Your task to perform on an android device: Search for seafood restaurants on Google Maps Image 0: 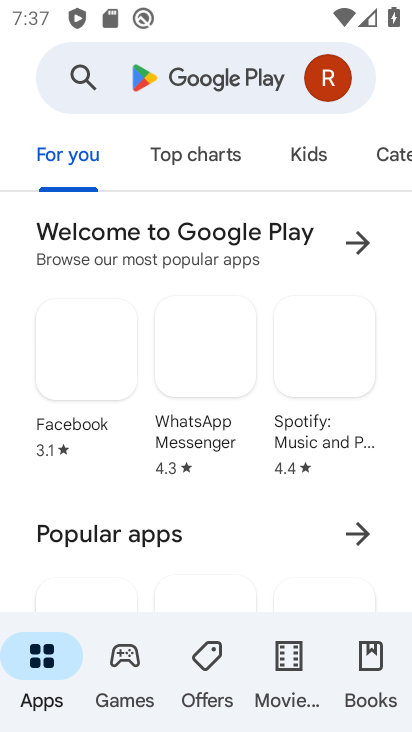
Step 0: press home button
Your task to perform on an android device: Search for seafood restaurants on Google Maps Image 1: 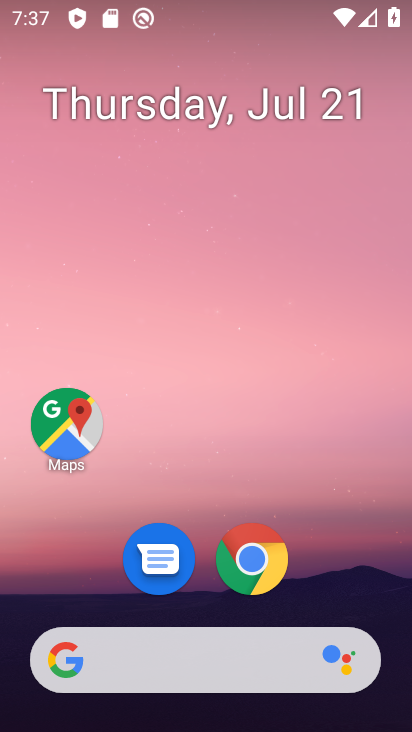
Step 1: drag from (193, 680) to (253, 143)
Your task to perform on an android device: Search for seafood restaurants on Google Maps Image 2: 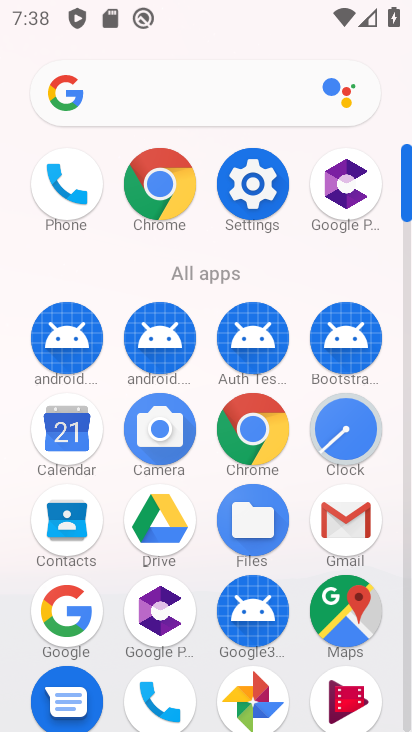
Step 2: click (350, 525)
Your task to perform on an android device: Search for seafood restaurants on Google Maps Image 3: 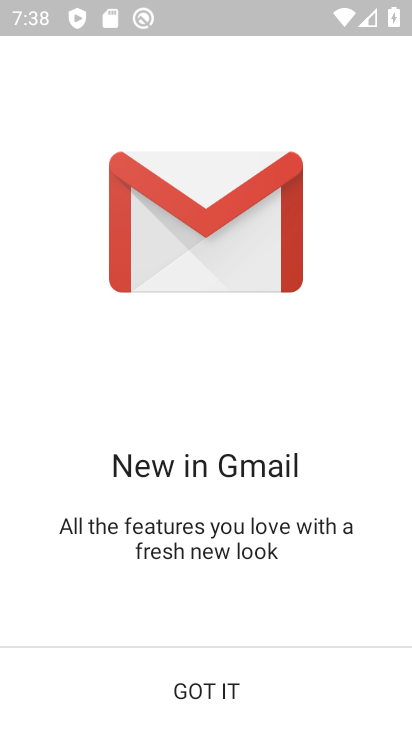
Step 3: press home button
Your task to perform on an android device: Search for seafood restaurants on Google Maps Image 4: 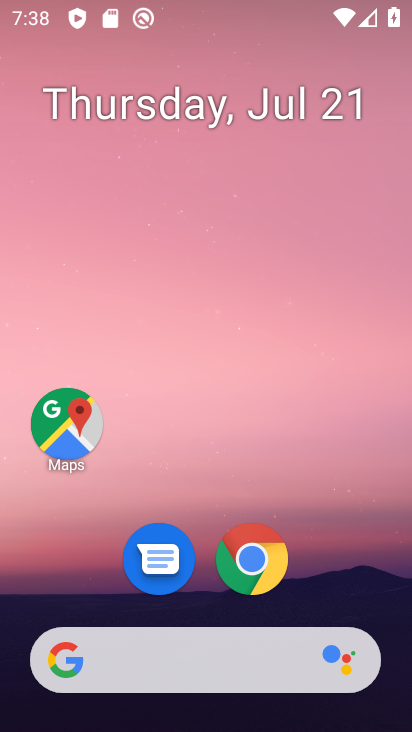
Step 4: drag from (213, 670) to (277, 157)
Your task to perform on an android device: Search for seafood restaurants on Google Maps Image 5: 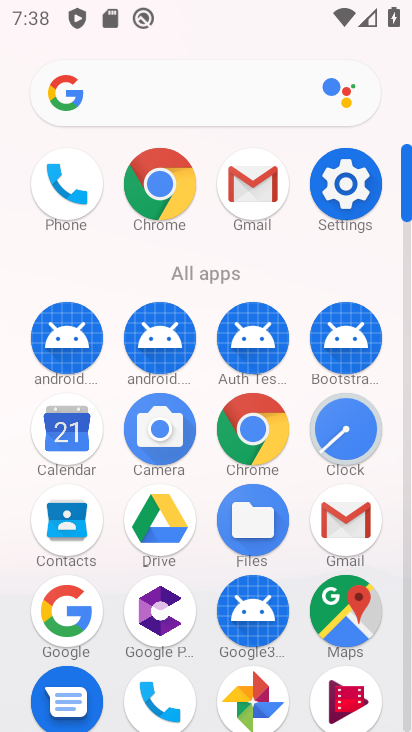
Step 5: click (358, 604)
Your task to perform on an android device: Search for seafood restaurants on Google Maps Image 6: 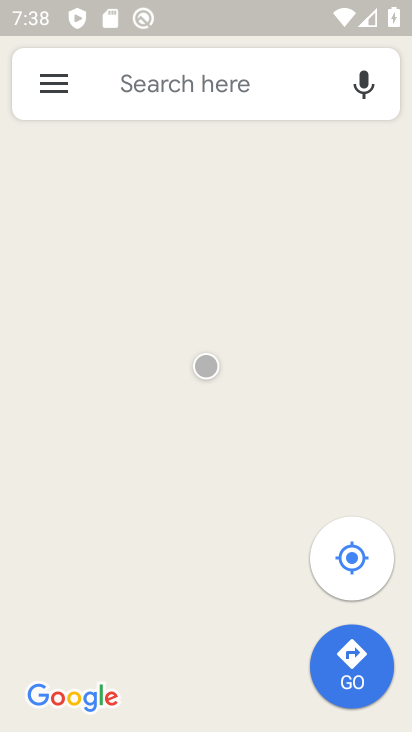
Step 6: click (227, 103)
Your task to perform on an android device: Search for seafood restaurants on Google Maps Image 7: 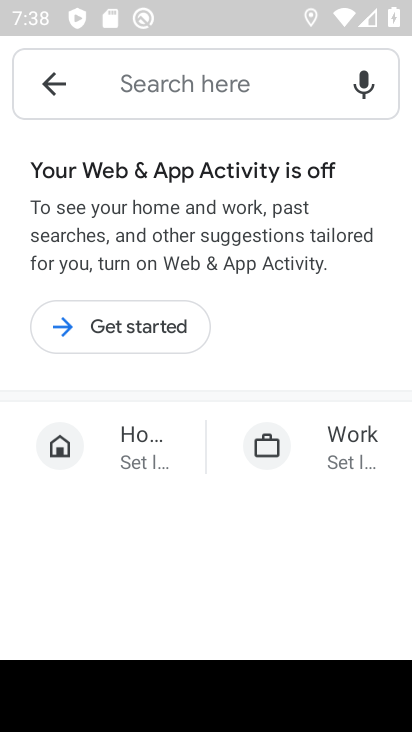
Step 7: click (227, 103)
Your task to perform on an android device: Search for seafood restaurants on Google Maps Image 8: 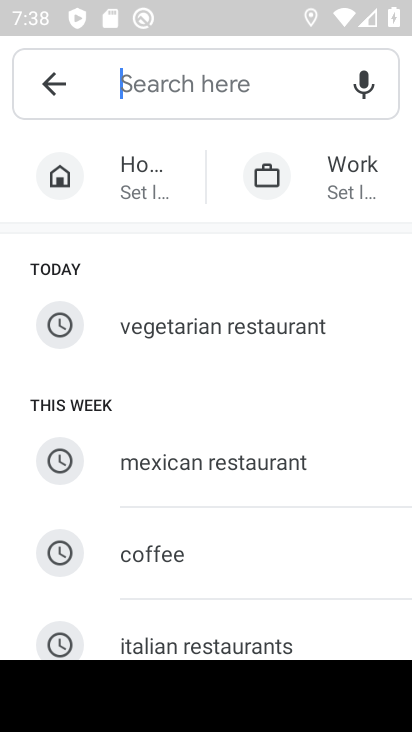
Step 8: type "seafood restaurants"
Your task to perform on an android device: Search for seafood restaurants on Google Maps Image 9: 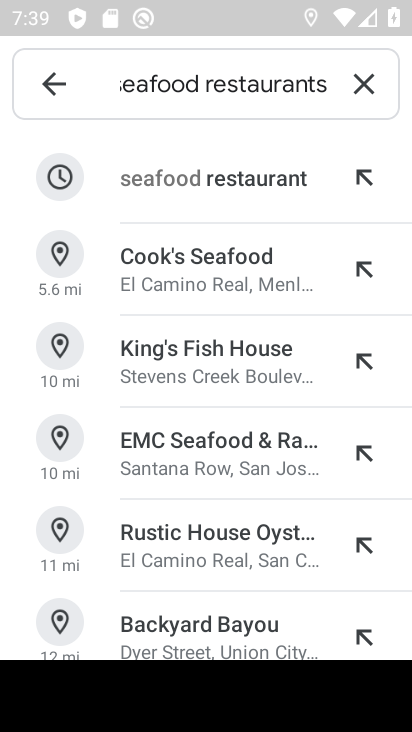
Step 9: click (144, 183)
Your task to perform on an android device: Search for seafood restaurants on Google Maps Image 10: 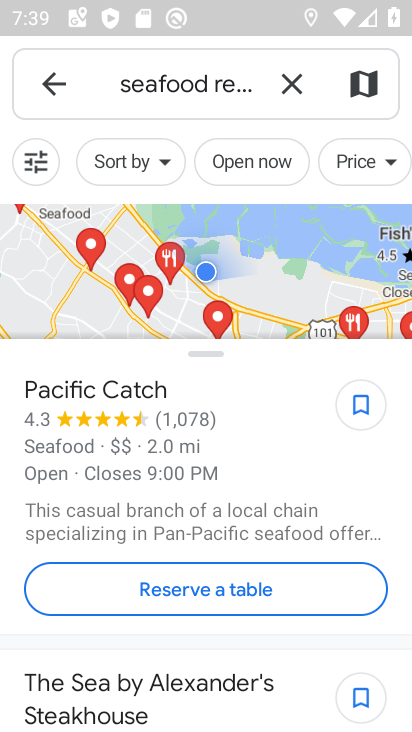
Step 10: task complete